Your task to perform on an android device: Open accessibility settings Image 0: 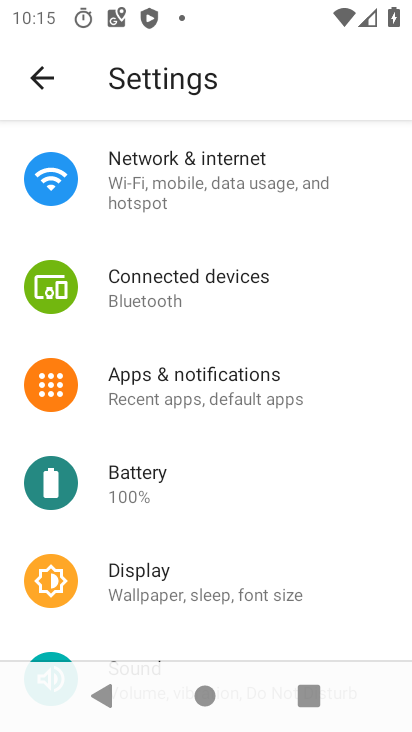
Step 0: drag from (180, 613) to (206, 192)
Your task to perform on an android device: Open accessibility settings Image 1: 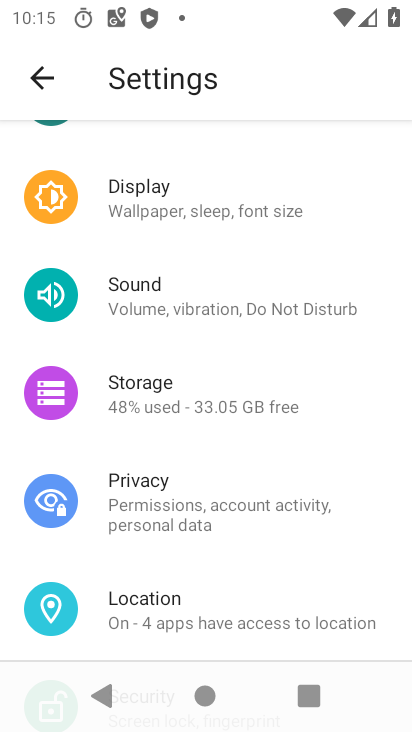
Step 1: drag from (159, 618) to (157, 203)
Your task to perform on an android device: Open accessibility settings Image 2: 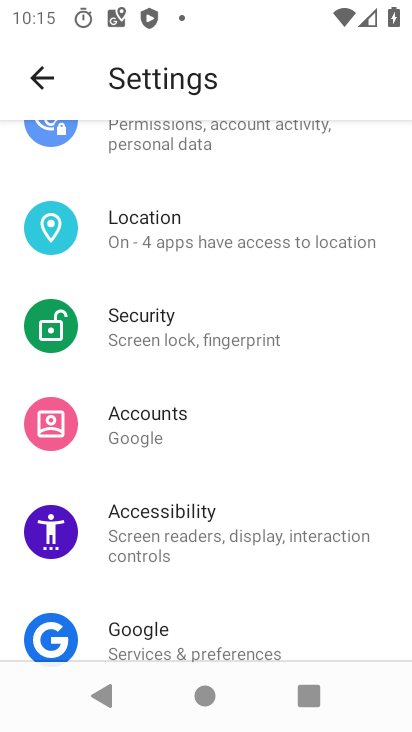
Step 2: click (146, 530)
Your task to perform on an android device: Open accessibility settings Image 3: 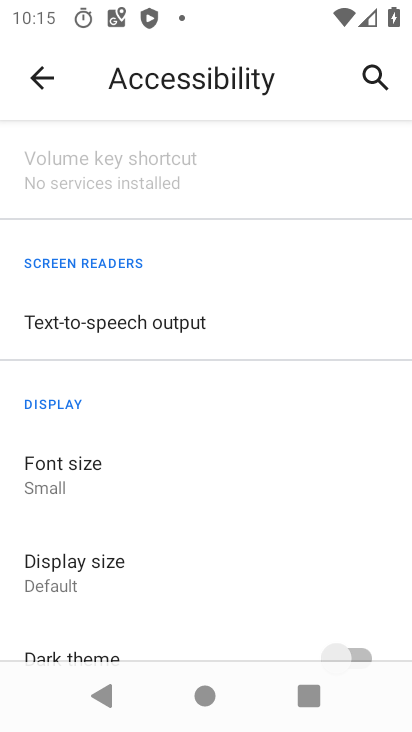
Step 3: task complete